Your task to perform on an android device: Show me the alarms in the clock app Image 0: 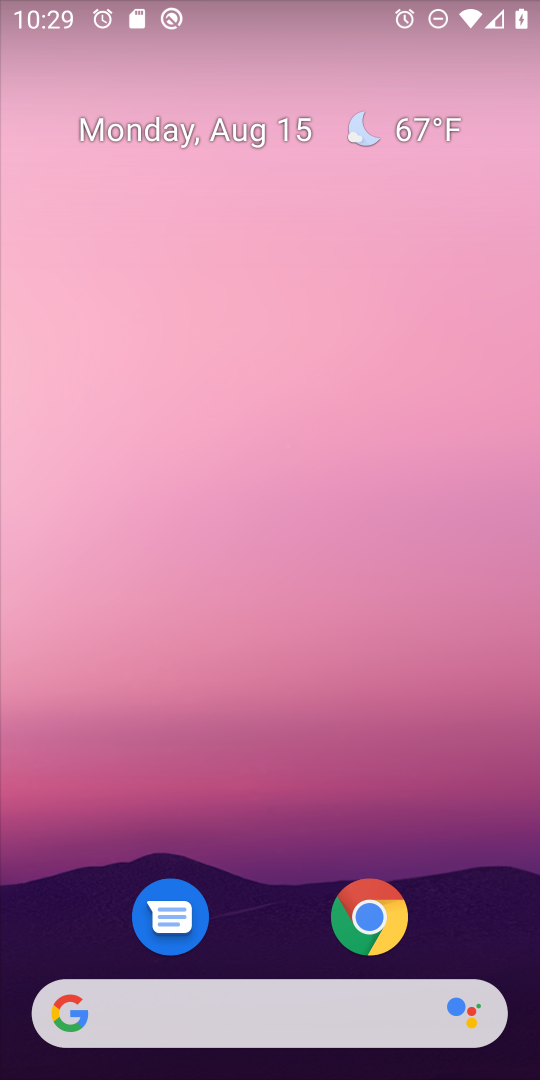
Step 0: drag from (275, 828) to (344, 34)
Your task to perform on an android device: Show me the alarms in the clock app Image 1: 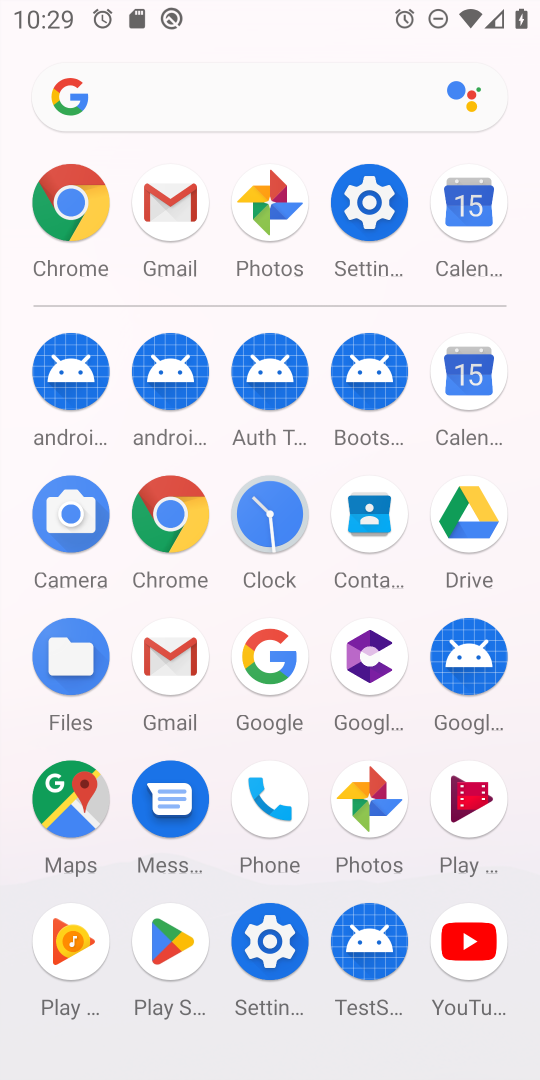
Step 1: click (276, 508)
Your task to perform on an android device: Show me the alarms in the clock app Image 2: 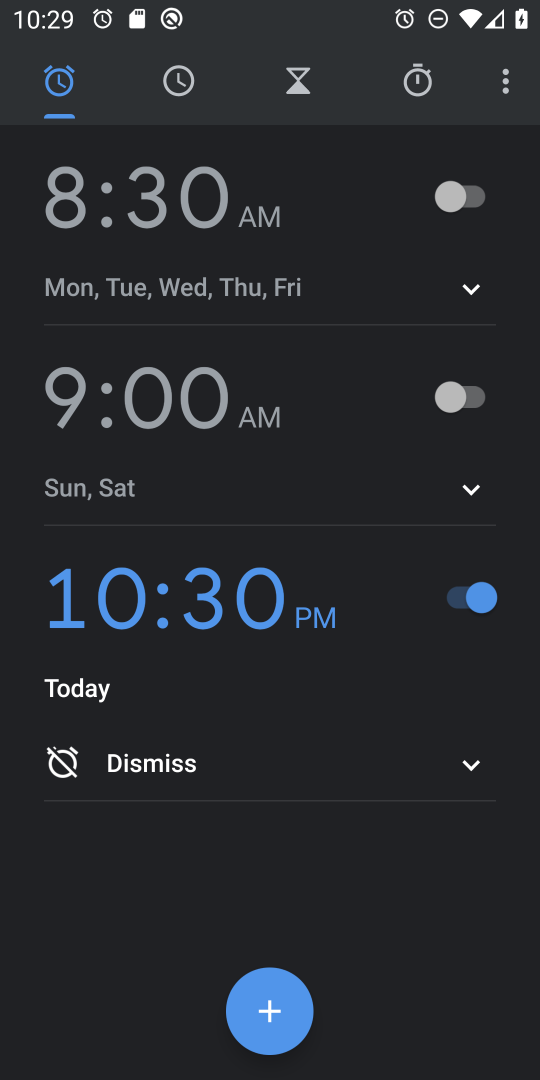
Step 2: task complete